Your task to perform on an android device: change timer sound Image 0: 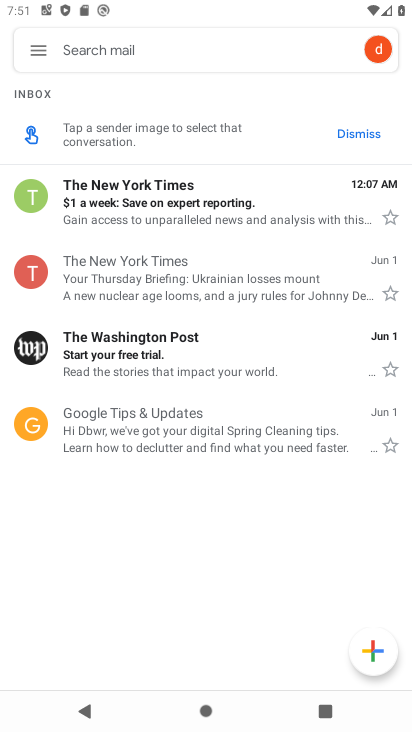
Step 0: press home button
Your task to perform on an android device: change timer sound Image 1: 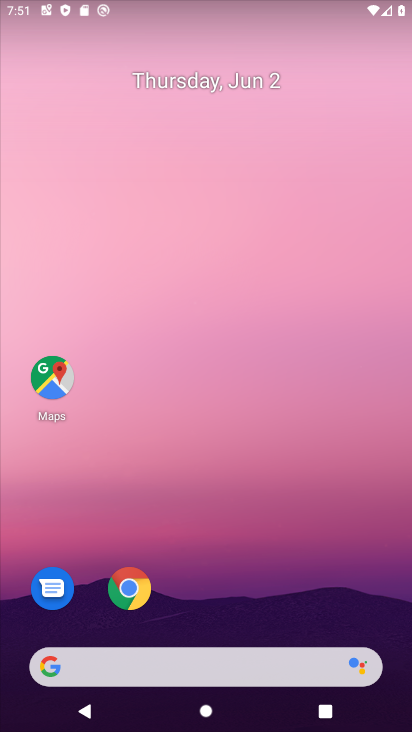
Step 1: drag from (258, 640) to (320, 42)
Your task to perform on an android device: change timer sound Image 2: 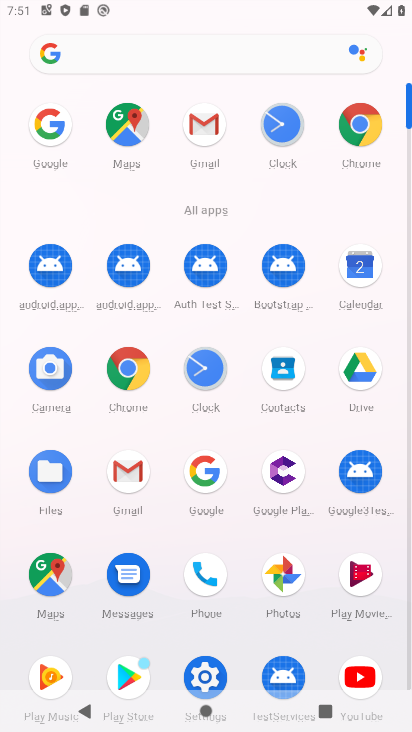
Step 2: click (282, 148)
Your task to perform on an android device: change timer sound Image 3: 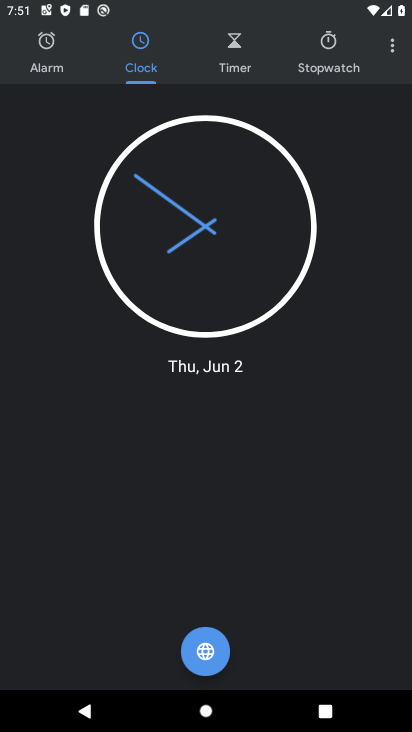
Step 3: click (397, 46)
Your task to perform on an android device: change timer sound Image 4: 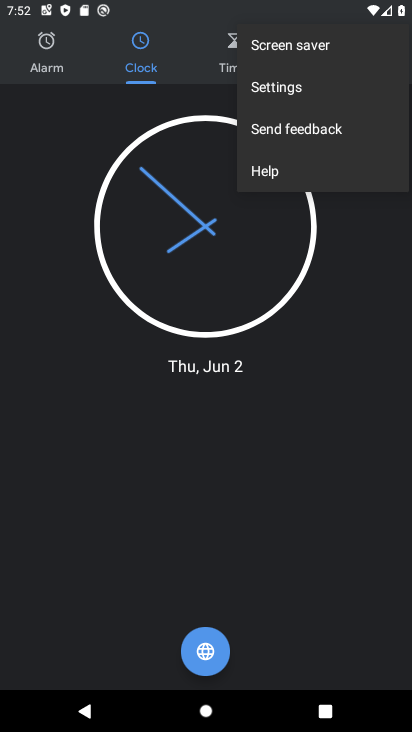
Step 4: click (297, 85)
Your task to perform on an android device: change timer sound Image 5: 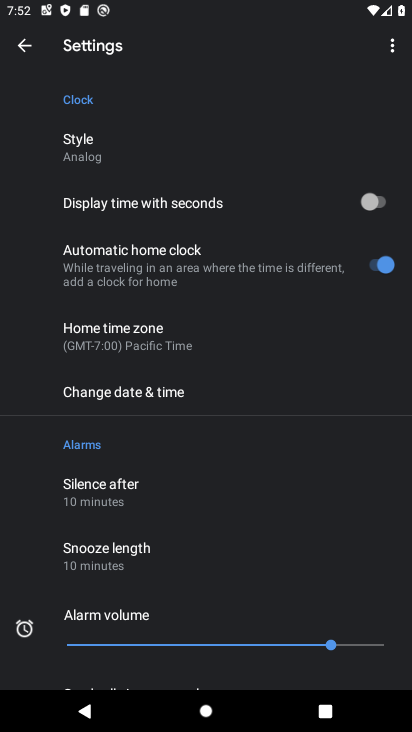
Step 5: drag from (171, 509) to (240, 169)
Your task to perform on an android device: change timer sound Image 6: 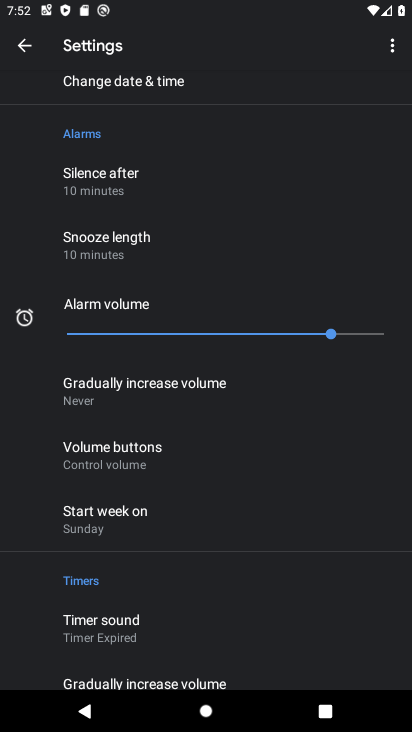
Step 6: drag from (219, 453) to (268, 211)
Your task to perform on an android device: change timer sound Image 7: 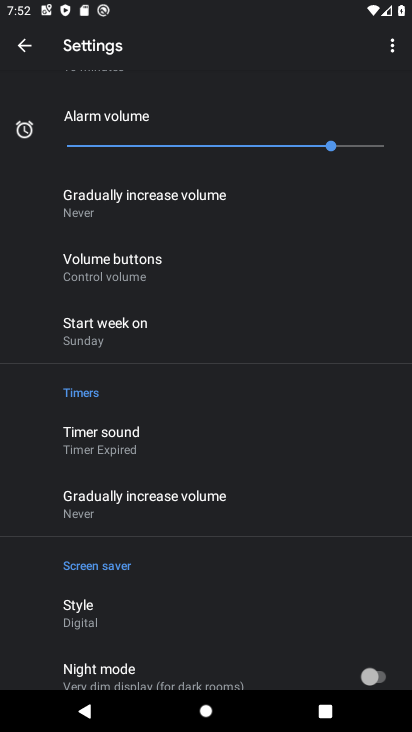
Step 7: click (165, 446)
Your task to perform on an android device: change timer sound Image 8: 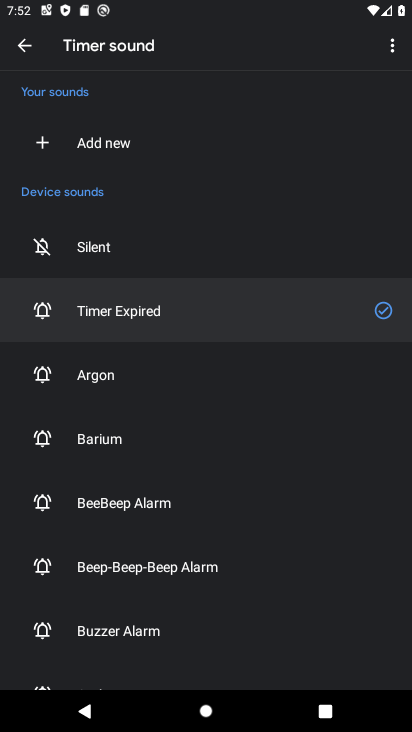
Step 8: click (128, 394)
Your task to perform on an android device: change timer sound Image 9: 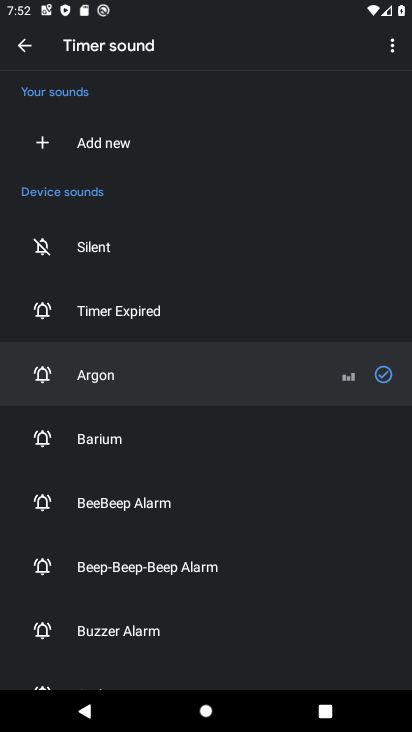
Step 9: task complete